Your task to perform on an android device: What's the weather going to be tomorrow? Image 0: 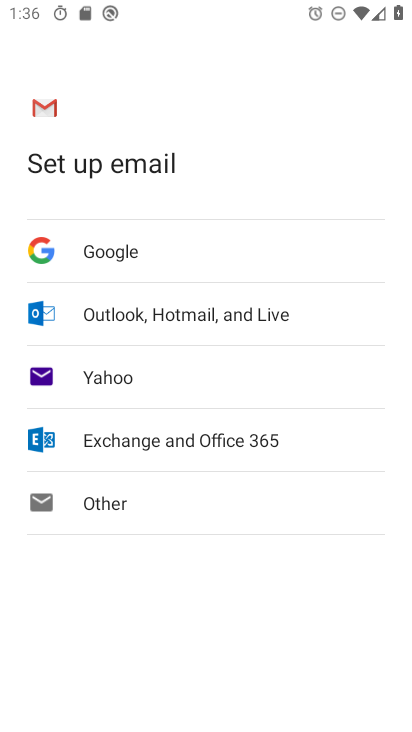
Step 0: press home button
Your task to perform on an android device: What's the weather going to be tomorrow? Image 1: 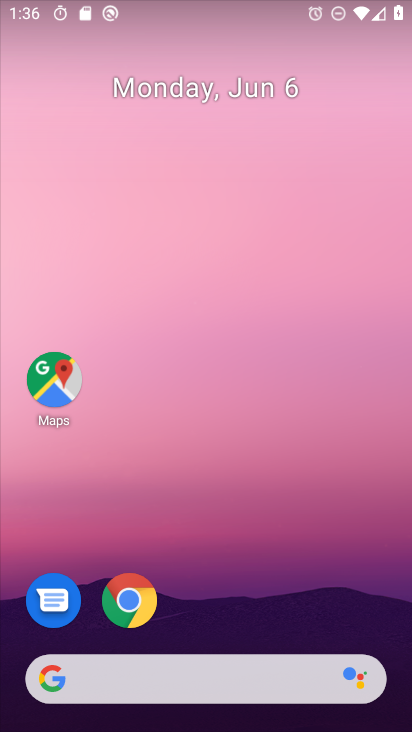
Step 1: drag from (214, 625) to (227, 243)
Your task to perform on an android device: What's the weather going to be tomorrow? Image 2: 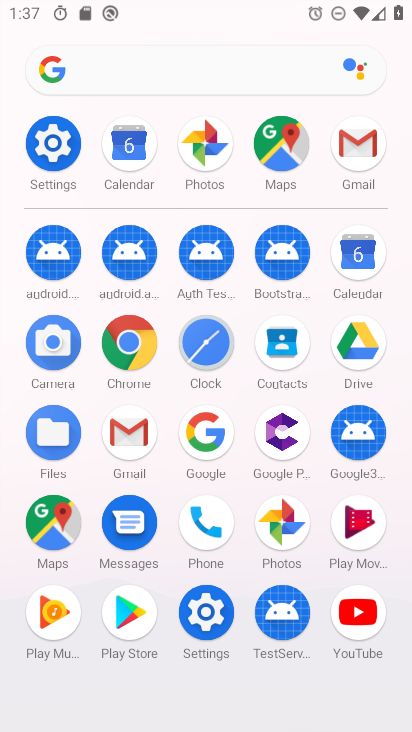
Step 2: click (179, 440)
Your task to perform on an android device: What's the weather going to be tomorrow? Image 3: 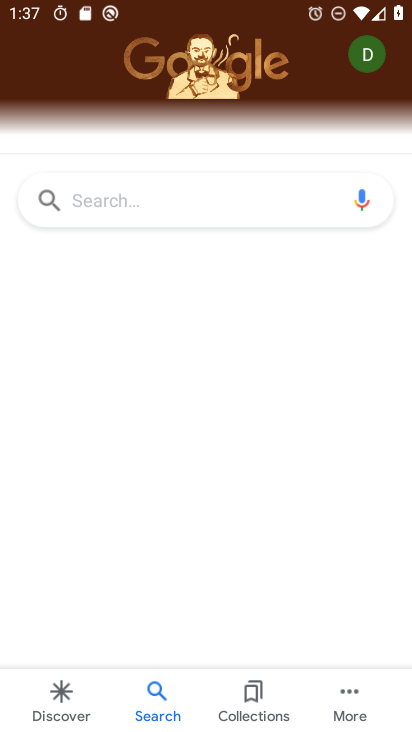
Step 3: click (195, 200)
Your task to perform on an android device: What's the weather going to be tomorrow? Image 4: 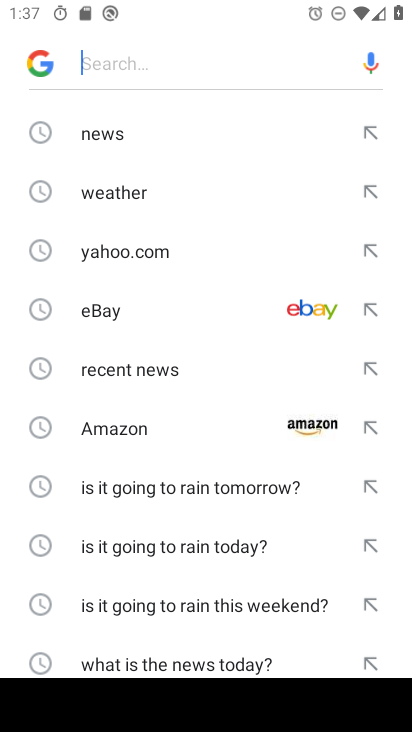
Step 4: click (155, 200)
Your task to perform on an android device: What's the weather going to be tomorrow? Image 5: 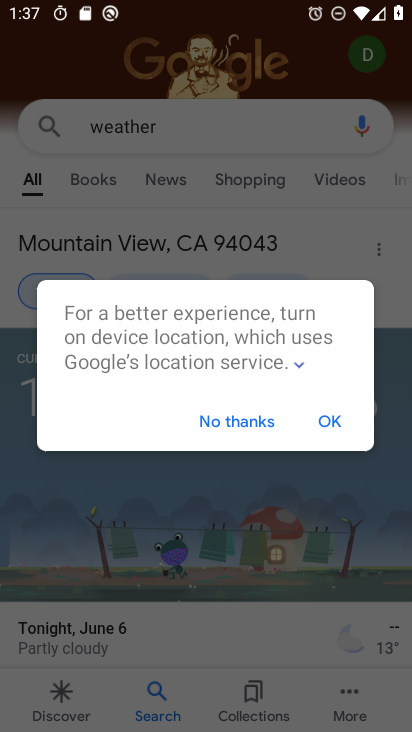
Step 5: click (319, 412)
Your task to perform on an android device: What's the weather going to be tomorrow? Image 6: 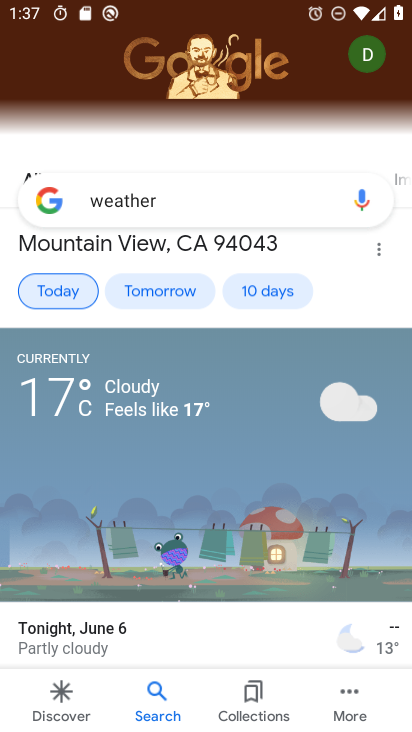
Step 6: click (141, 300)
Your task to perform on an android device: What's the weather going to be tomorrow? Image 7: 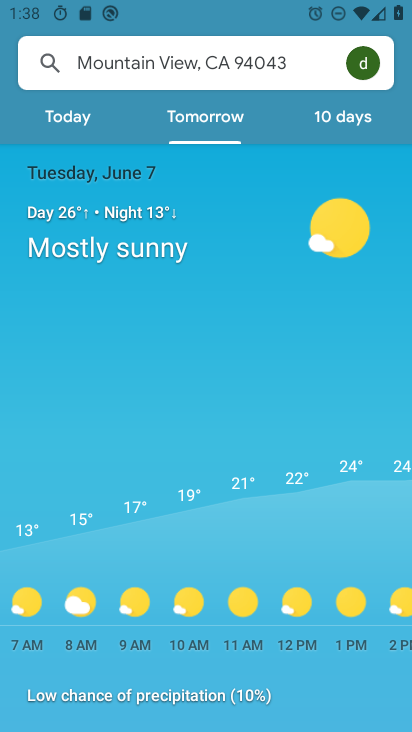
Step 7: task complete